Your task to perform on an android device: check storage Image 0: 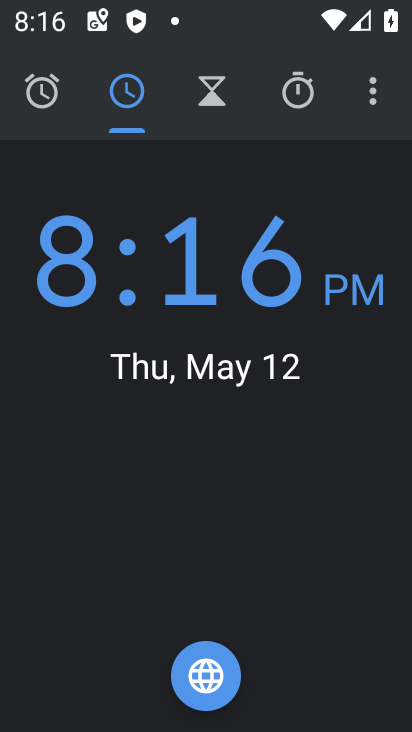
Step 0: press home button
Your task to perform on an android device: check storage Image 1: 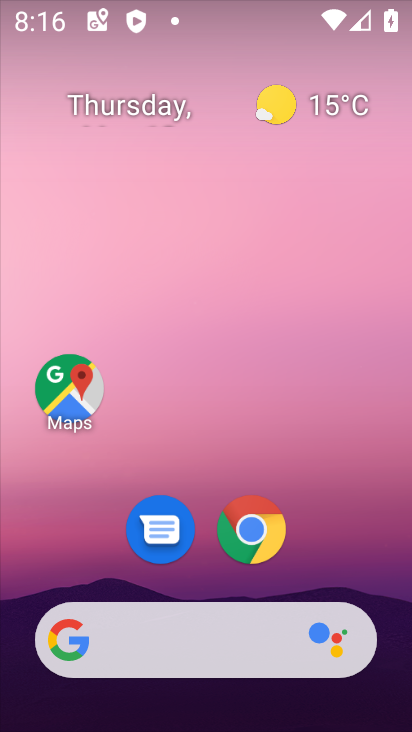
Step 1: drag from (254, 715) to (291, 53)
Your task to perform on an android device: check storage Image 2: 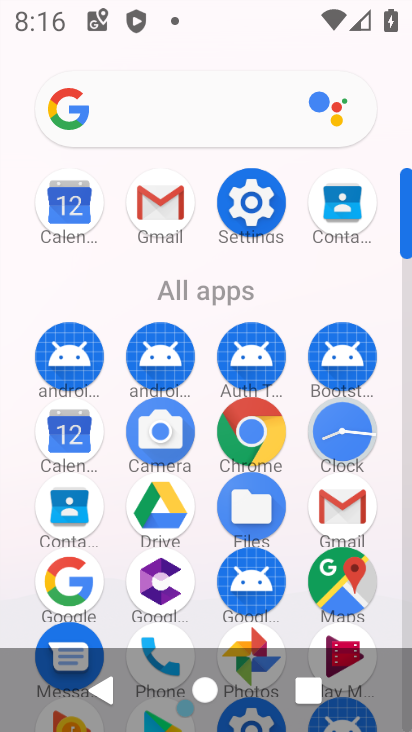
Step 2: click (255, 197)
Your task to perform on an android device: check storage Image 3: 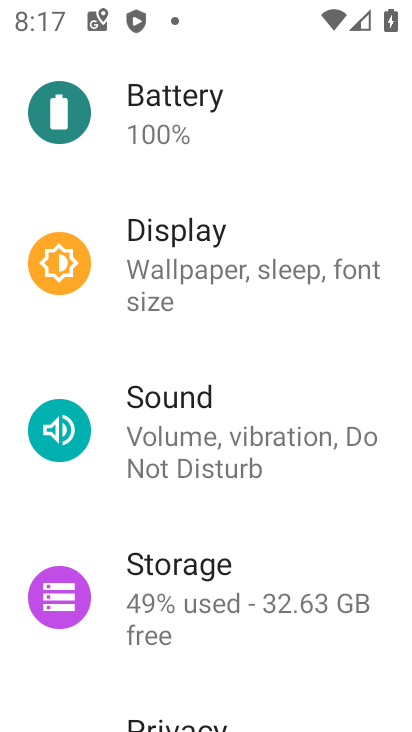
Step 3: click (204, 606)
Your task to perform on an android device: check storage Image 4: 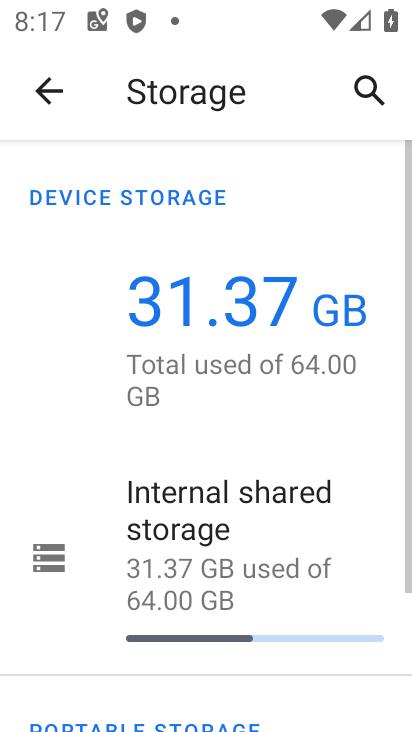
Step 4: task complete